Your task to perform on an android device: open app "LinkedIn" Image 0: 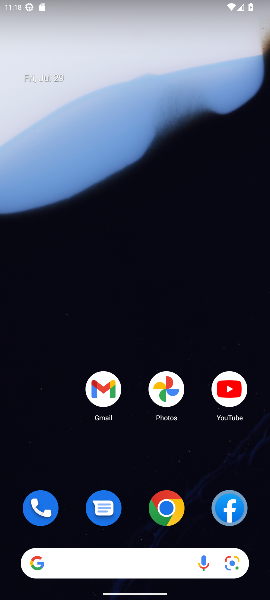
Step 0: drag from (80, 569) to (61, 31)
Your task to perform on an android device: open app "LinkedIn" Image 1: 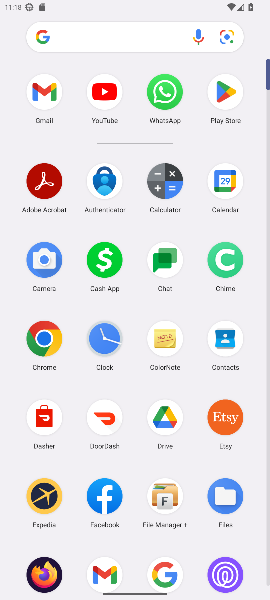
Step 1: click (228, 86)
Your task to perform on an android device: open app "LinkedIn" Image 2: 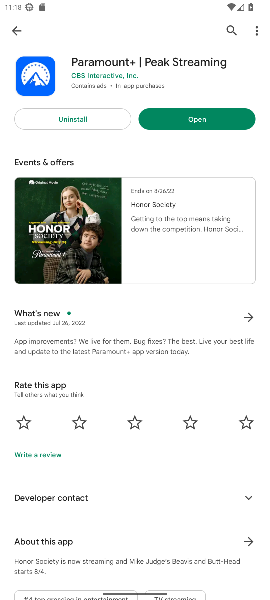
Step 2: click (228, 26)
Your task to perform on an android device: open app "LinkedIn" Image 3: 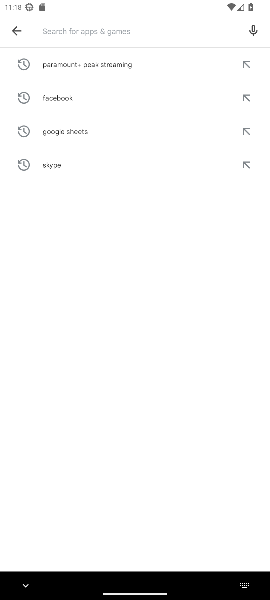
Step 3: type "linkedin"
Your task to perform on an android device: open app "LinkedIn" Image 4: 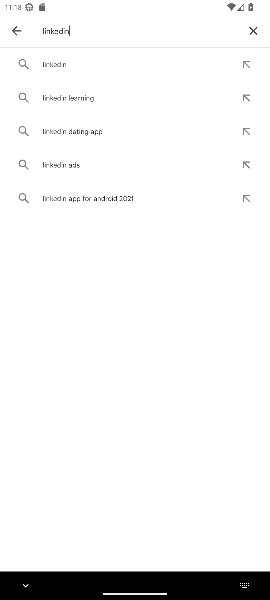
Step 4: click (69, 52)
Your task to perform on an android device: open app "LinkedIn" Image 5: 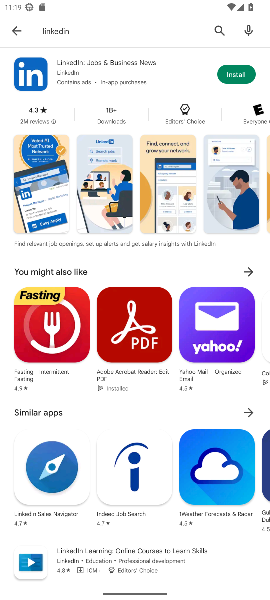
Step 5: task complete